Your task to perform on an android device: Turn off the flashlight Image 0: 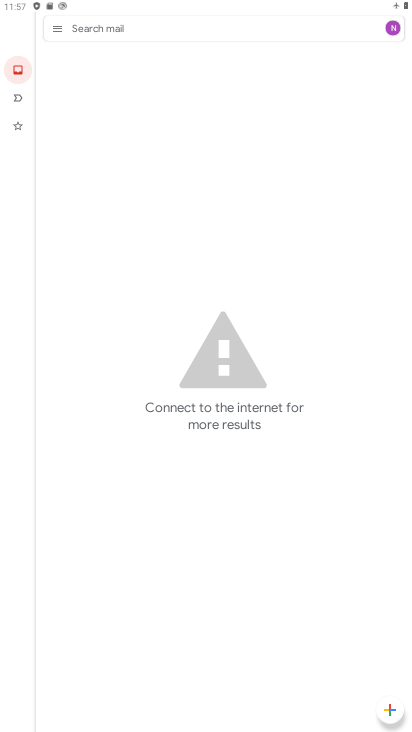
Step 0: drag from (292, 584) to (288, 342)
Your task to perform on an android device: Turn off the flashlight Image 1: 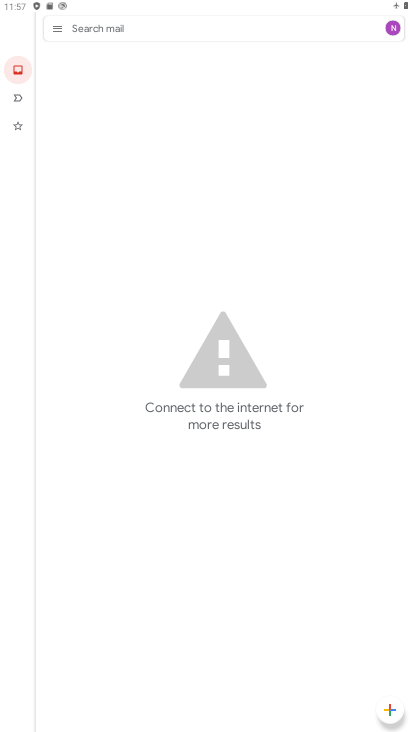
Step 1: press home button
Your task to perform on an android device: Turn off the flashlight Image 2: 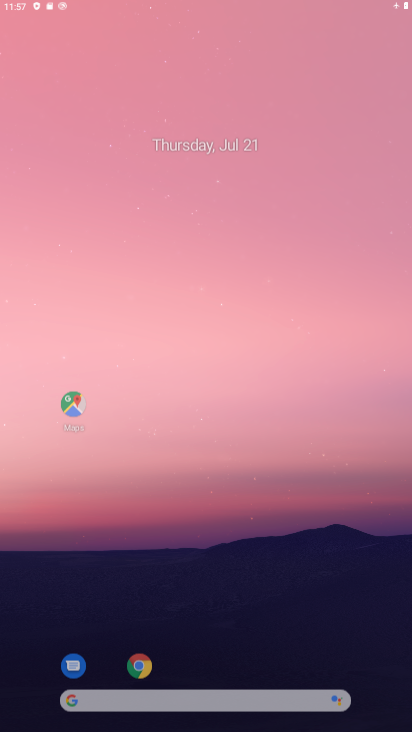
Step 2: drag from (228, 600) to (233, 117)
Your task to perform on an android device: Turn off the flashlight Image 3: 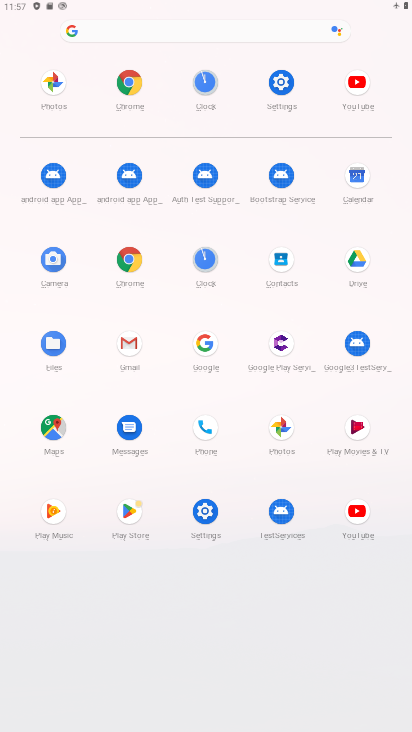
Step 3: click (198, 509)
Your task to perform on an android device: Turn off the flashlight Image 4: 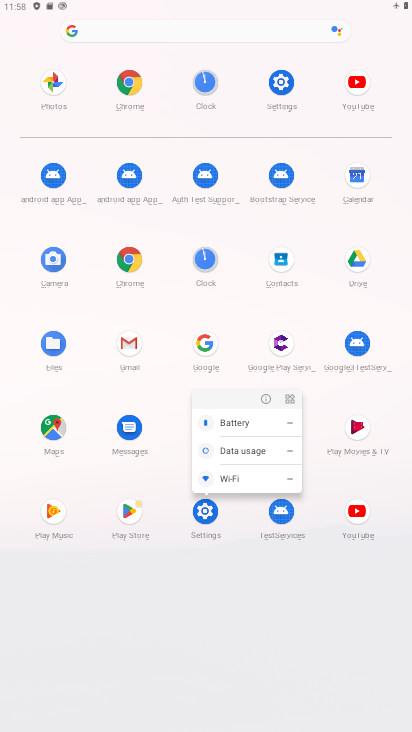
Step 4: click (259, 394)
Your task to perform on an android device: Turn off the flashlight Image 5: 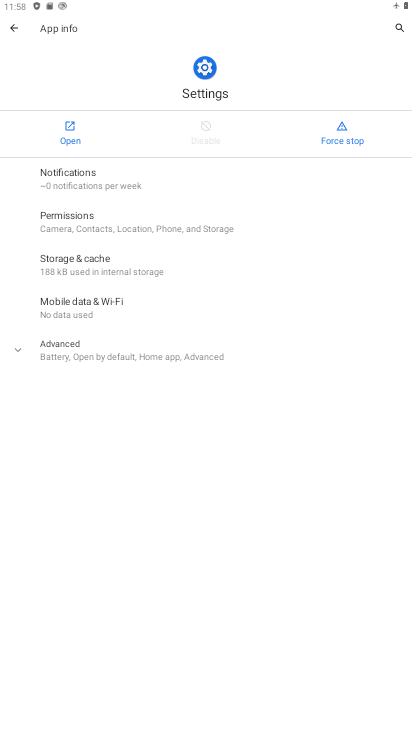
Step 5: click (62, 135)
Your task to perform on an android device: Turn off the flashlight Image 6: 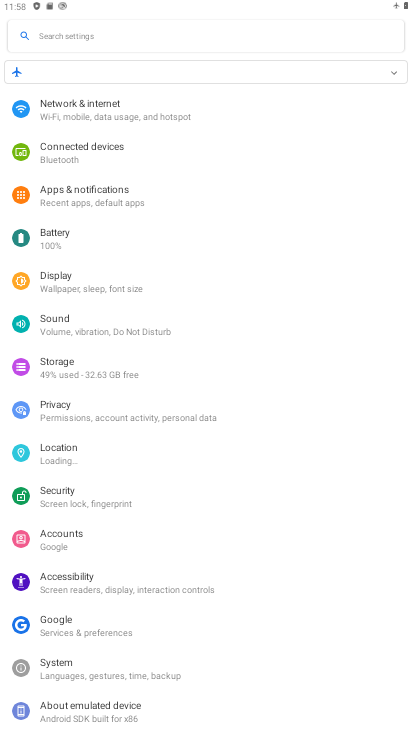
Step 6: click (134, 98)
Your task to perform on an android device: Turn off the flashlight Image 7: 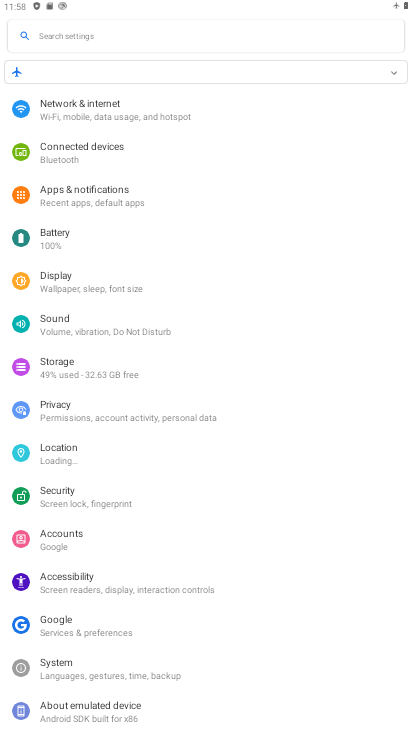
Step 7: click (133, 98)
Your task to perform on an android device: Turn off the flashlight Image 8: 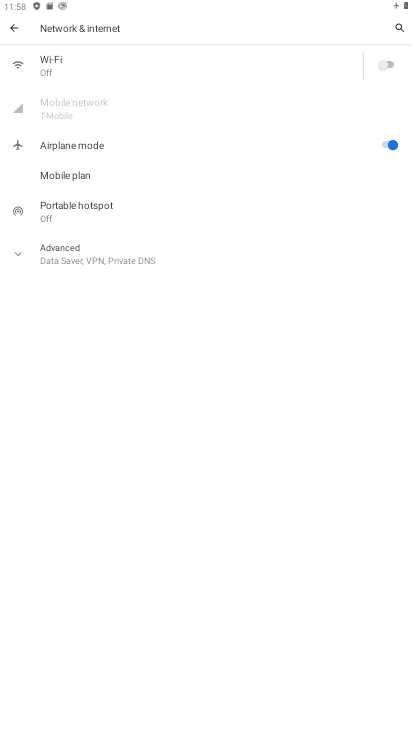
Step 8: click (389, 136)
Your task to perform on an android device: Turn off the flashlight Image 9: 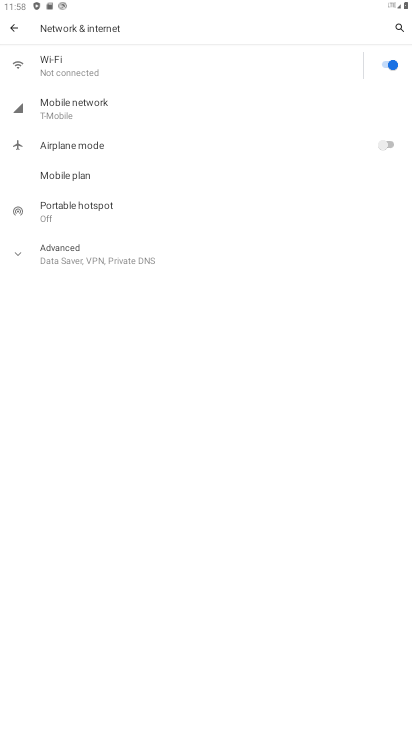
Step 9: task complete